Your task to perform on an android device: set default search engine in the chrome app Image 0: 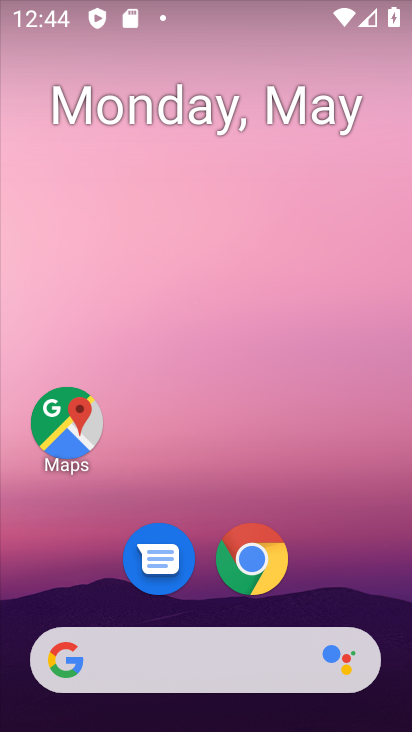
Step 0: click (245, 565)
Your task to perform on an android device: set default search engine in the chrome app Image 1: 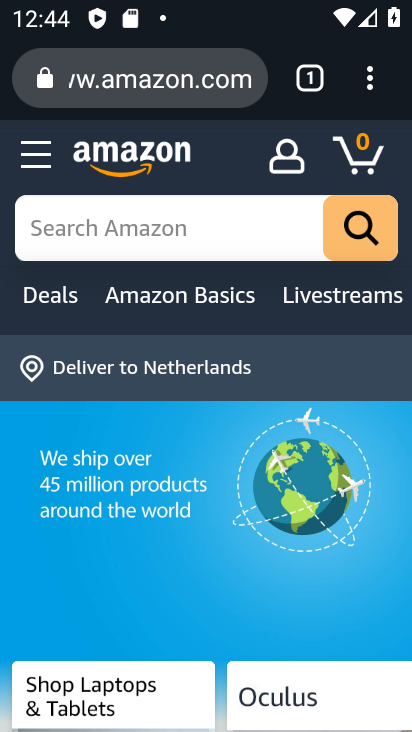
Step 1: click (375, 82)
Your task to perform on an android device: set default search engine in the chrome app Image 2: 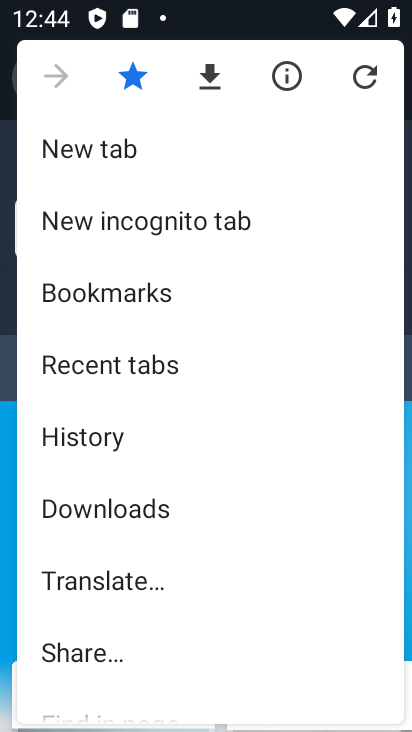
Step 2: drag from (221, 667) to (303, 199)
Your task to perform on an android device: set default search engine in the chrome app Image 3: 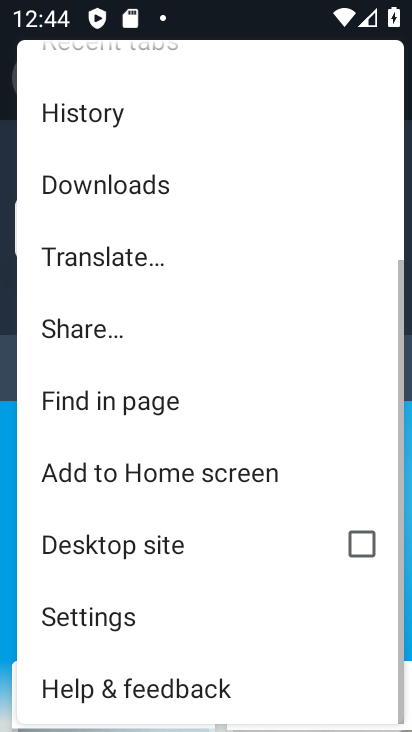
Step 3: click (136, 615)
Your task to perform on an android device: set default search engine in the chrome app Image 4: 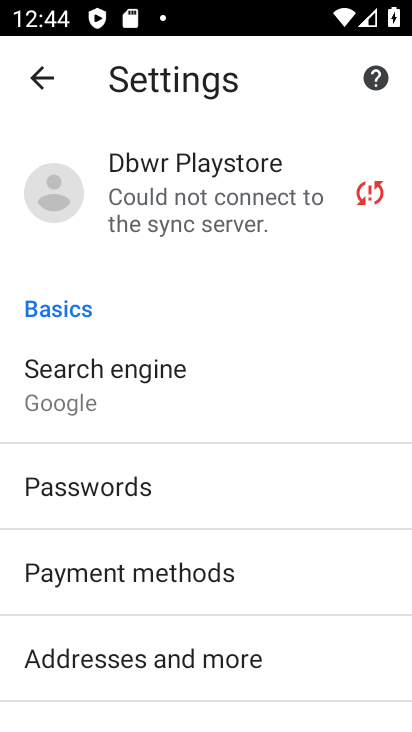
Step 4: click (143, 391)
Your task to perform on an android device: set default search engine in the chrome app Image 5: 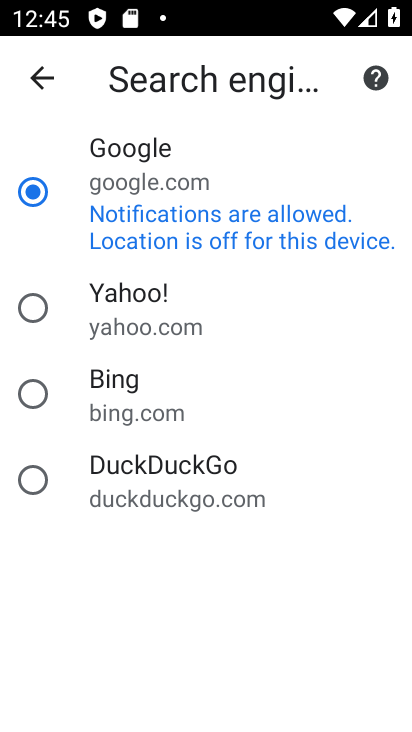
Step 5: task complete